Your task to perform on an android device: What is the recent news? Image 0: 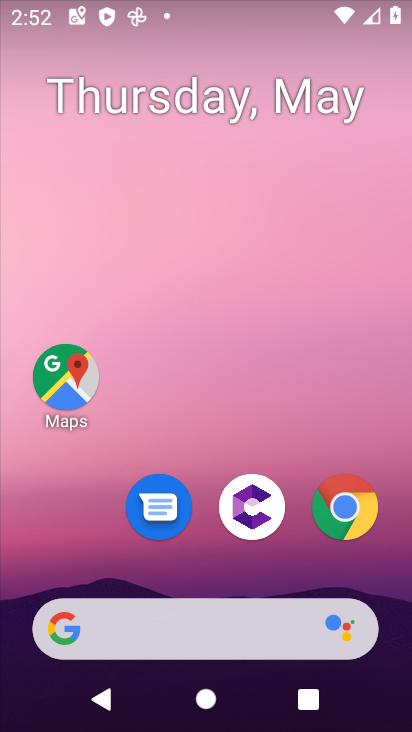
Step 0: click (140, 624)
Your task to perform on an android device: What is the recent news? Image 1: 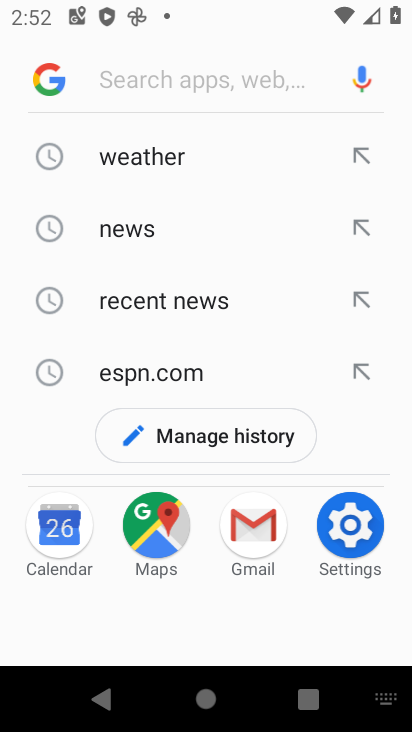
Step 1: click (166, 298)
Your task to perform on an android device: What is the recent news? Image 2: 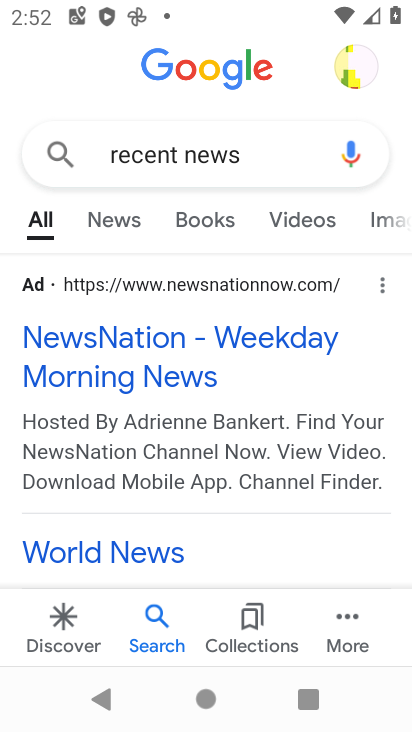
Step 2: task complete